Your task to perform on an android device: turn off airplane mode Image 0: 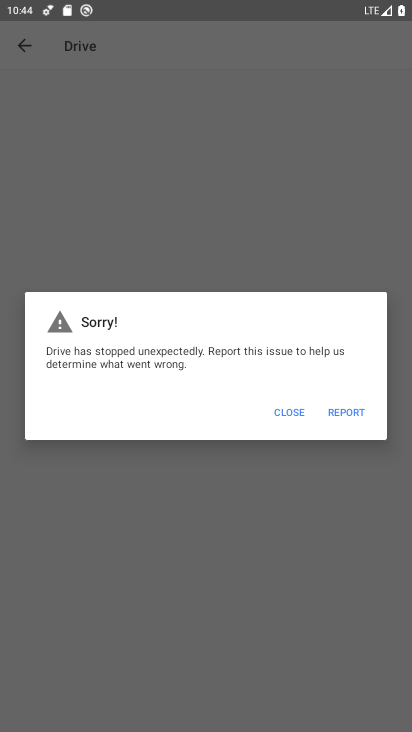
Step 0: press home button
Your task to perform on an android device: turn off airplane mode Image 1: 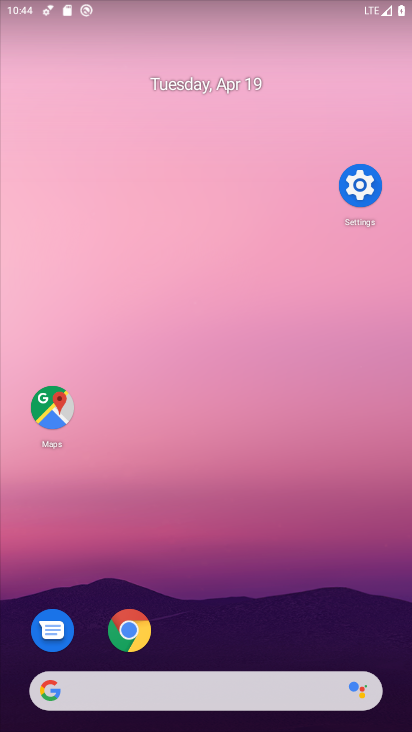
Step 1: drag from (325, 538) to (404, 194)
Your task to perform on an android device: turn off airplane mode Image 2: 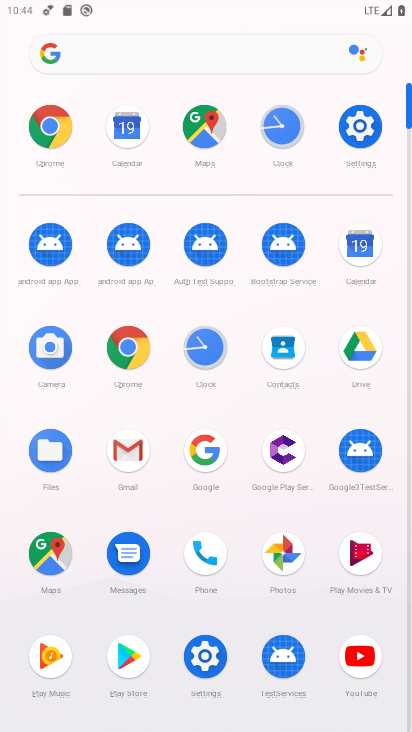
Step 2: click (359, 134)
Your task to perform on an android device: turn off airplane mode Image 3: 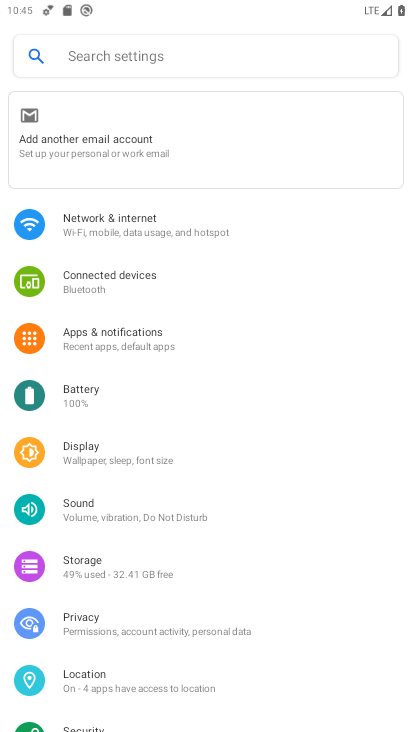
Step 3: click (225, 230)
Your task to perform on an android device: turn off airplane mode Image 4: 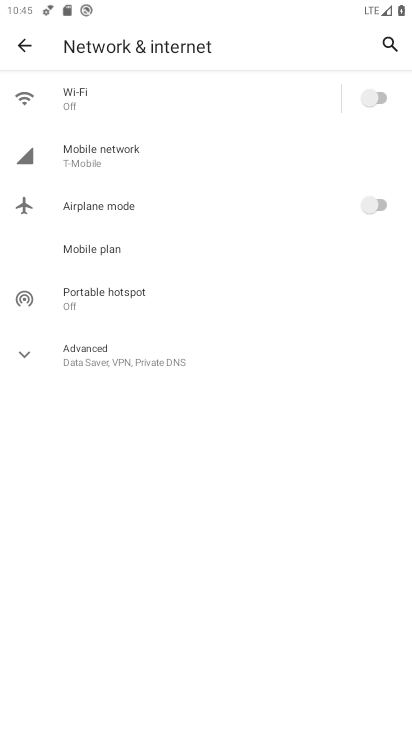
Step 4: task complete